Your task to perform on an android device: open a bookmark in the chrome app Image 0: 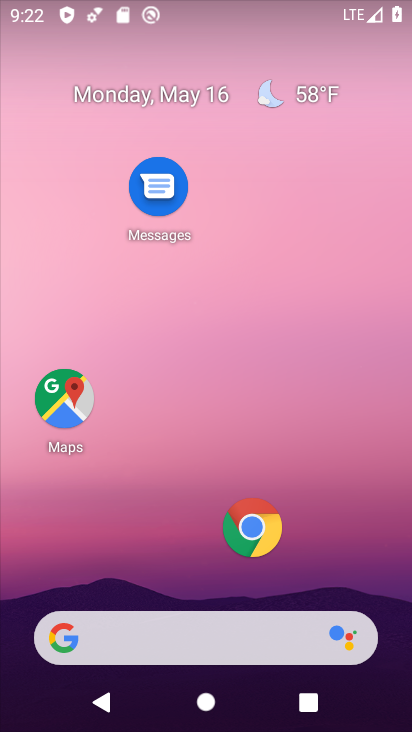
Step 0: click (252, 528)
Your task to perform on an android device: open a bookmark in the chrome app Image 1: 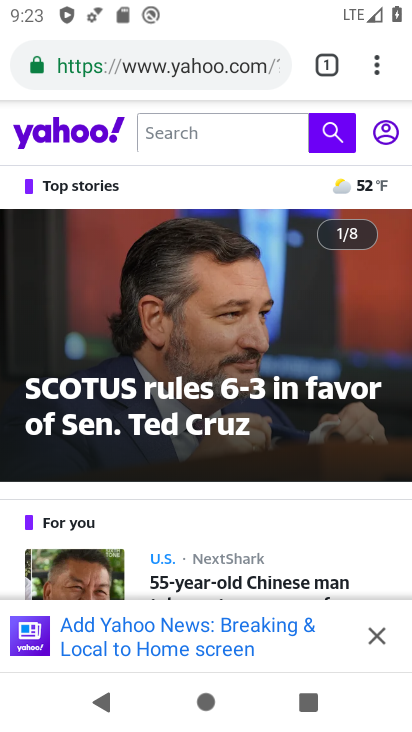
Step 1: click (370, 69)
Your task to perform on an android device: open a bookmark in the chrome app Image 2: 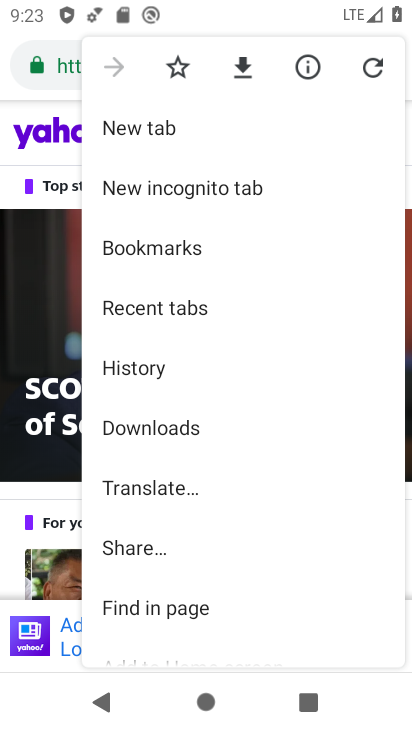
Step 2: click (151, 244)
Your task to perform on an android device: open a bookmark in the chrome app Image 3: 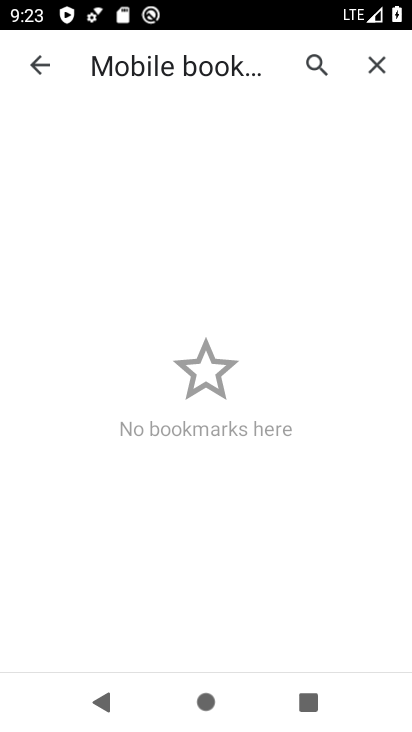
Step 3: task complete